Your task to perform on an android device: turn off smart reply in the gmail app Image 0: 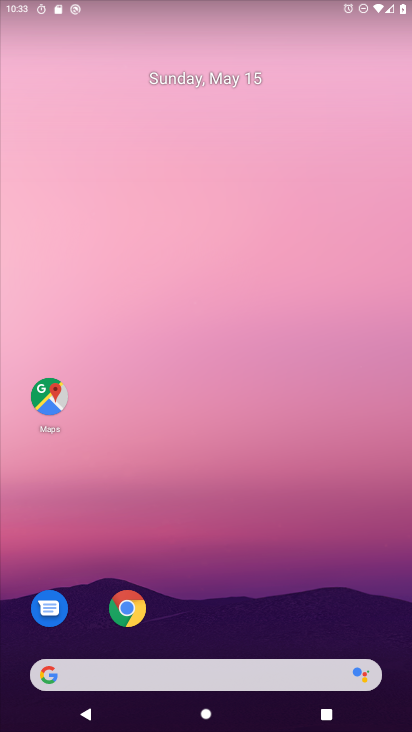
Step 0: drag from (347, 540) to (352, 2)
Your task to perform on an android device: turn off smart reply in the gmail app Image 1: 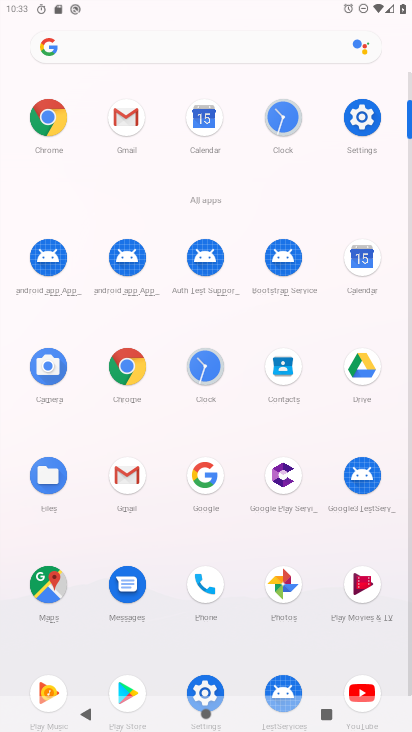
Step 1: click (110, 476)
Your task to perform on an android device: turn off smart reply in the gmail app Image 2: 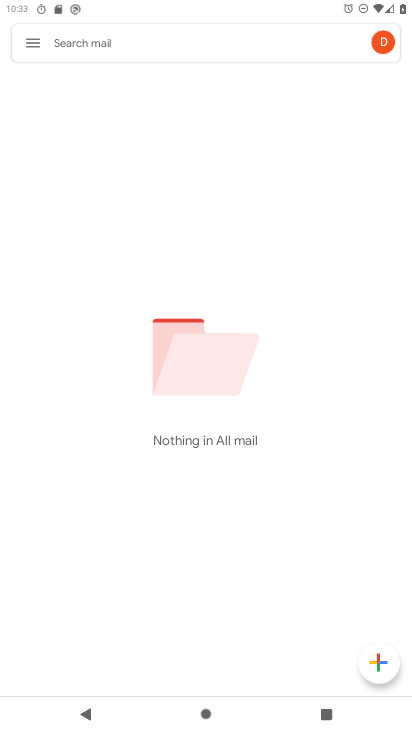
Step 2: click (34, 49)
Your task to perform on an android device: turn off smart reply in the gmail app Image 3: 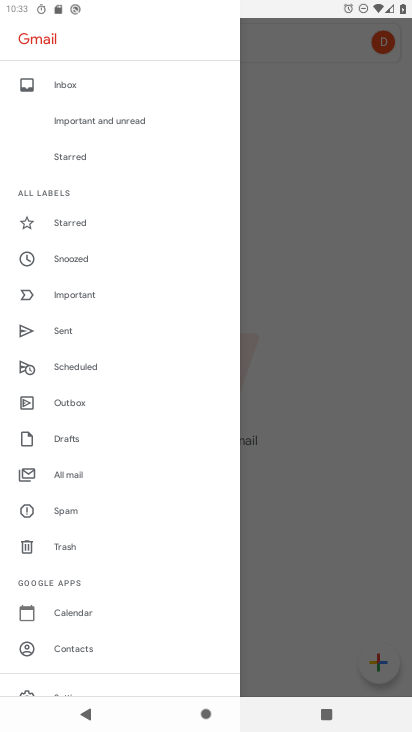
Step 3: drag from (132, 649) to (139, 412)
Your task to perform on an android device: turn off smart reply in the gmail app Image 4: 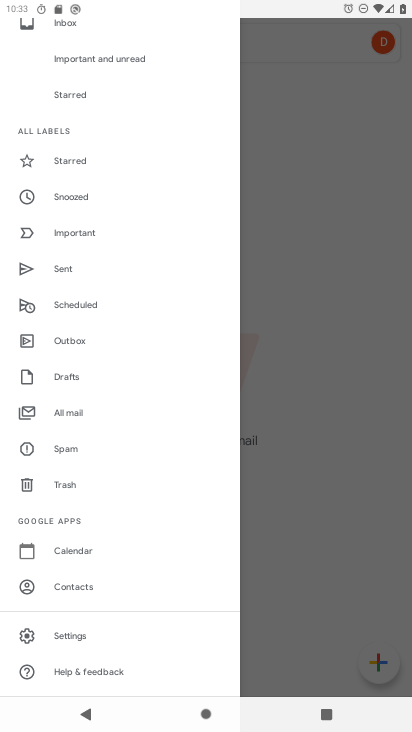
Step 4: click (105, 627)
Your task to perform on an android device: turn off smart reply in the gmail app Image 5: 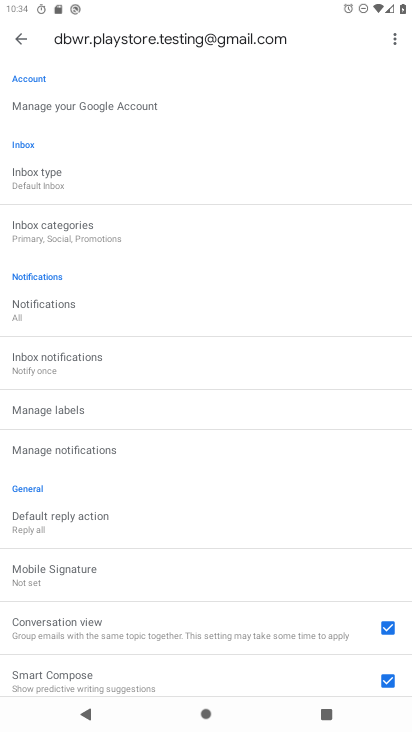
Step 5: drag from (174, 576) to (255, 369)
Your task to perform on an android device: turn off smart reply in the gmail app Image 6: 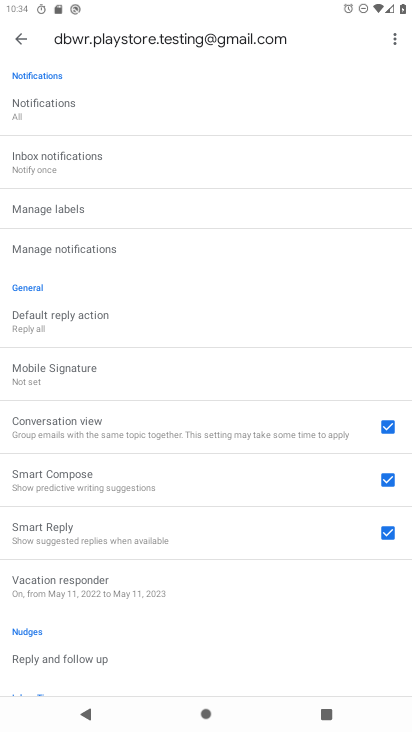
Step 6: click (382, 537)
Your task to perform on an android device: turn off smart reply in the gmail app Image 7: 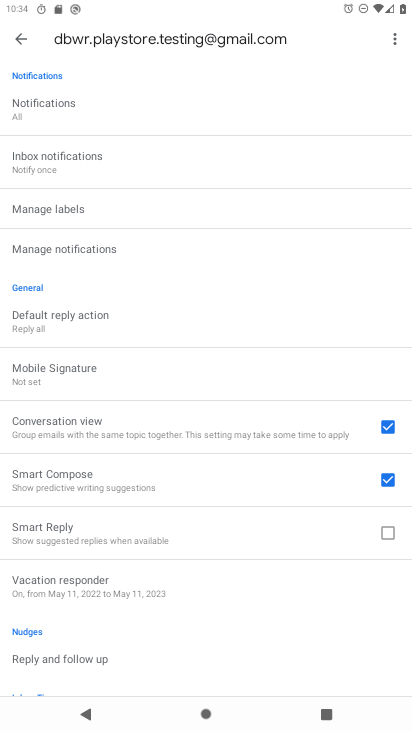
Step 7: task complete